Your task to perform on an android device: Open Amazon Image 0: 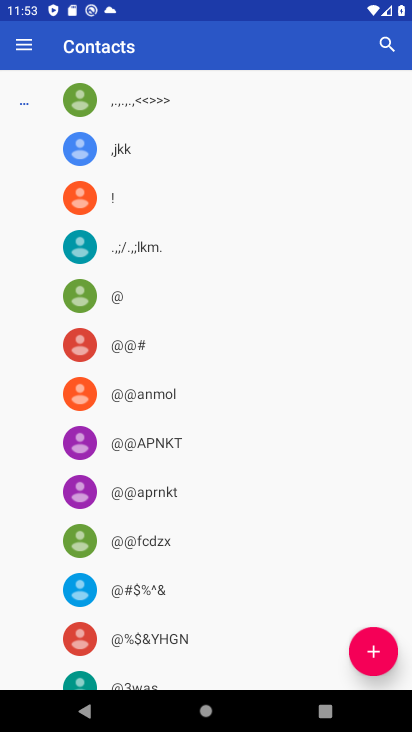
Step 0: press home button
Your task to perform on an android device: Open Amazon Image 1: 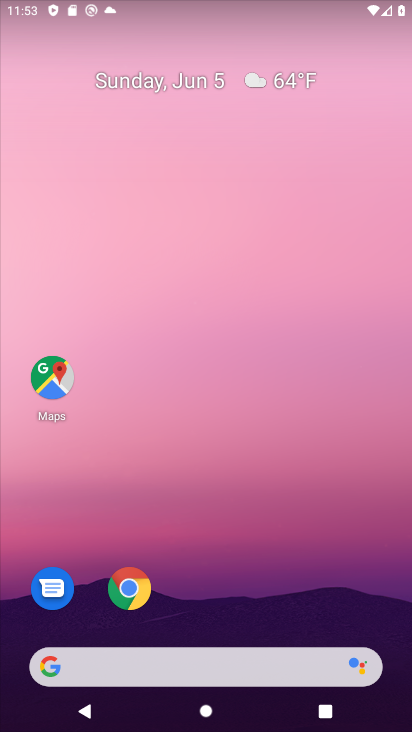
Step 1: click (134, 592)
Your task to perform on an android device: Open Amazon Image 2: 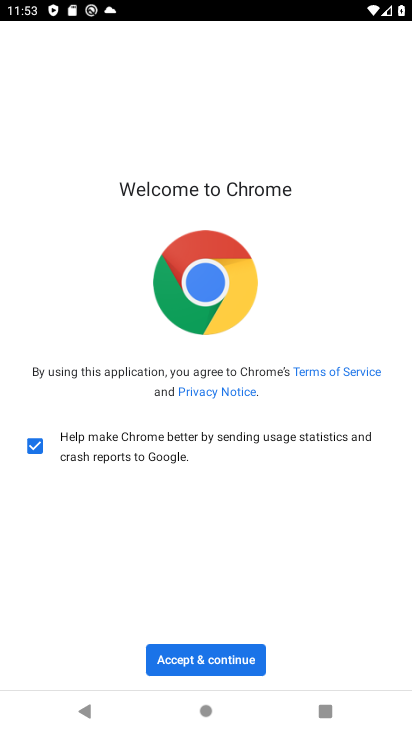
Step 2: click (219, 664)
Your task to perform on an android device: Open Amazon Image 3: 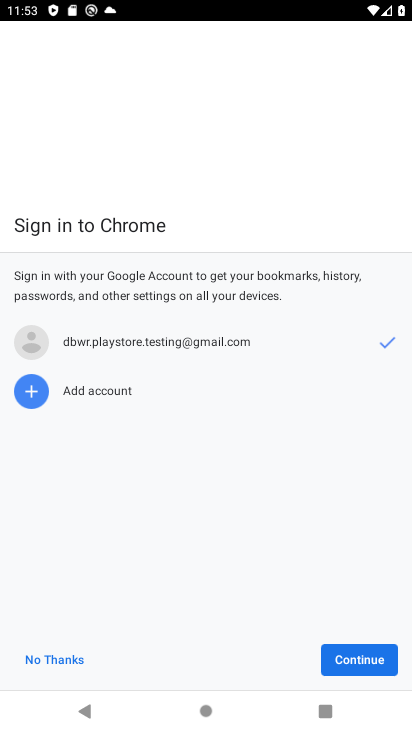
Step 3: click (395, 662)
Your task to perform on an android device: Open Amazon Image 4: 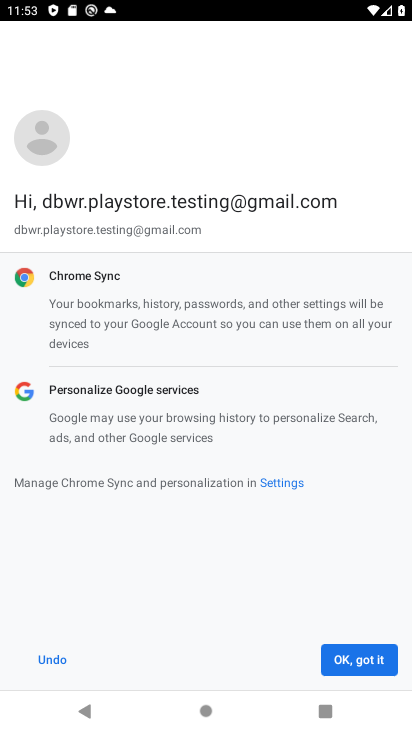
Step 4: click (365, 677)
Your task to perform on an android device: Open Amazon Image 5: 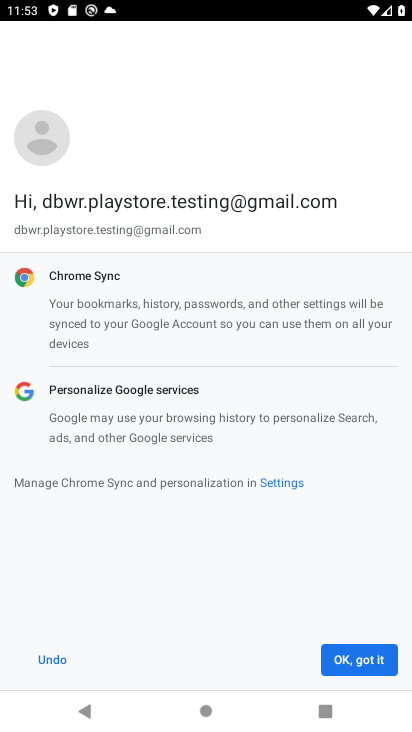
Step 5: click (368, 666)
Your task to perform on an android device: Open Amazon Image 6: 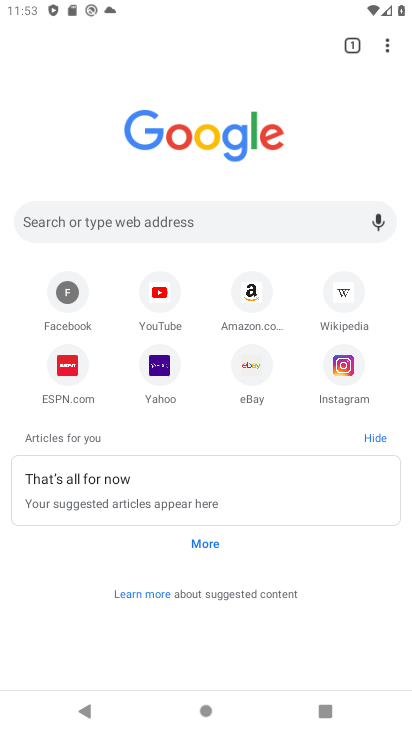
Step 6: click (257, 299)
Your task to perform on an android device: Open Amazon Image 7: 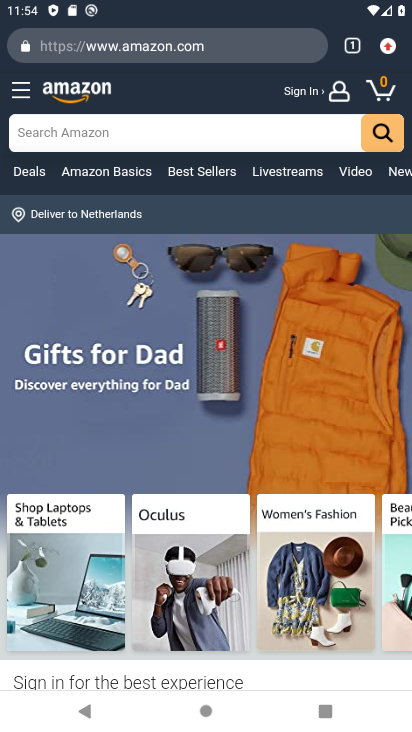
Step 7: task complete